Your task to perform on an android device: see tabs open on other devices in the chrome app Image 0: 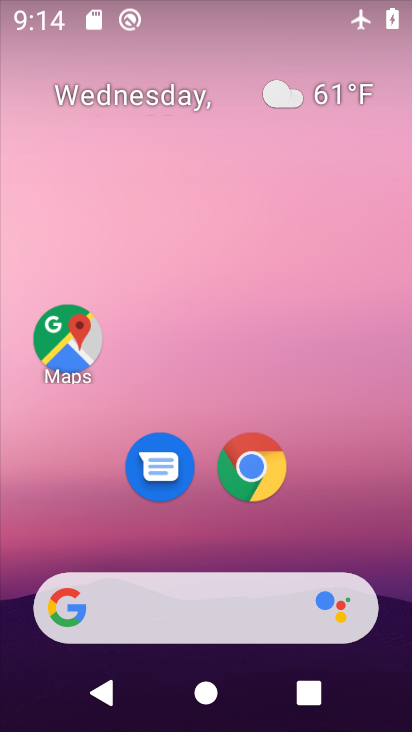
Step 0: drag from (347, 513) to (291, 102)
Your task to perform on an android device: see tabs open on other devices in the chrome app Image 1: 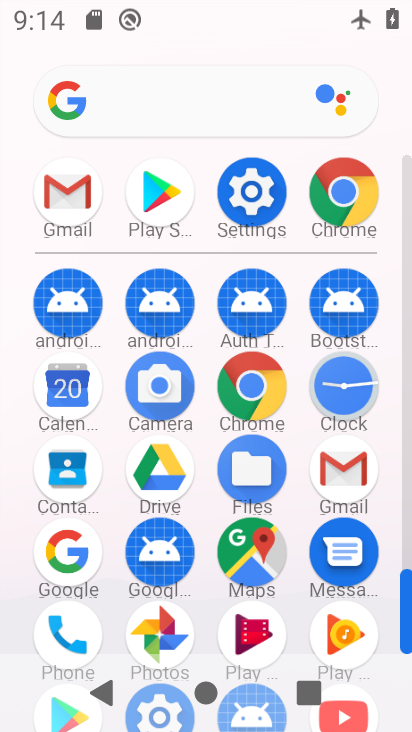
Step 1: click (366, 195)
Your task to perform on an android device: see tabs open on other devices in the chrome app Image 2: 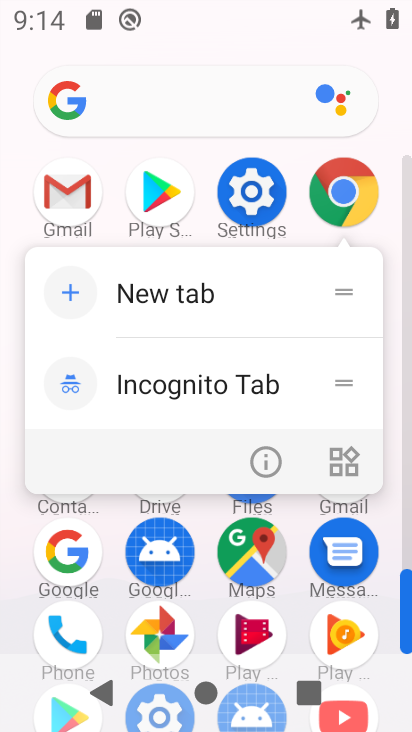
Step 2: click (367, 195)
Your task to perform on an android device: see tabs open on other devices in the chrome app Image 3: 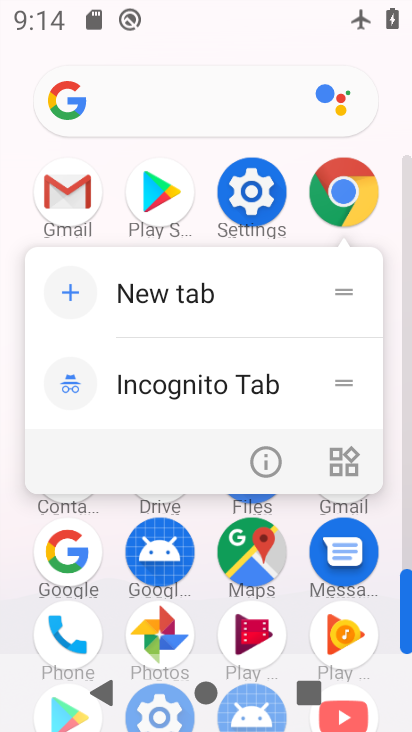
Step 3: click (367, 193)
Your task to perform on an android device: see tabs open on other devices in the chrome app Image 4: 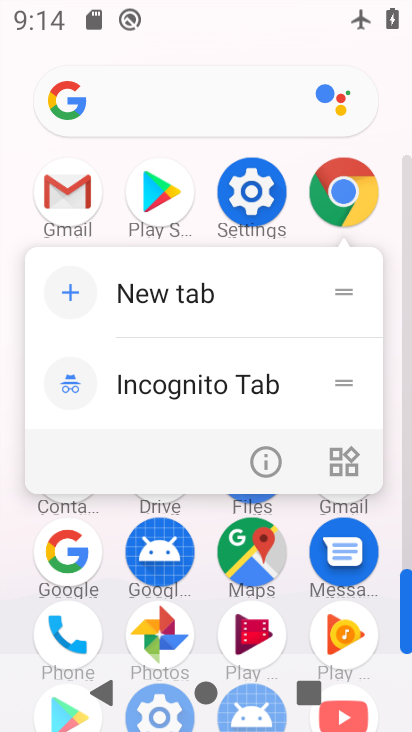
Step 4: click (367, 193)
Your task to perform on an android device: see tabs open on other devices in the chrome app Image 5: 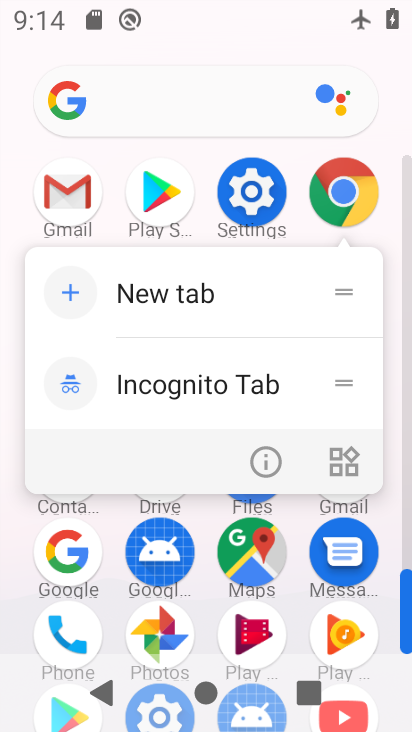
Step 5: click (367, 193)
Your task to perform on an android device: see tabs open on other devices in the chrome app Image 6: 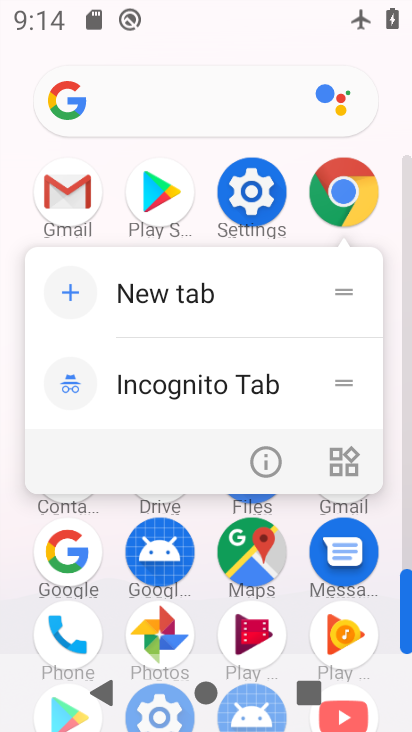
Step 6: click (367, 193)
Your task to perform on an android device: see tabs open on other devices in the chrome app Image 7: 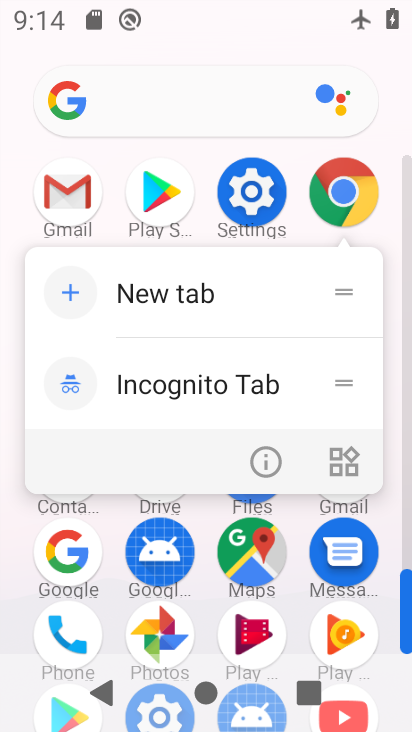
Step 7: click (367, 193)
Your task to perform on an android device: see tabs open on other devices in the chrome app Image 8: 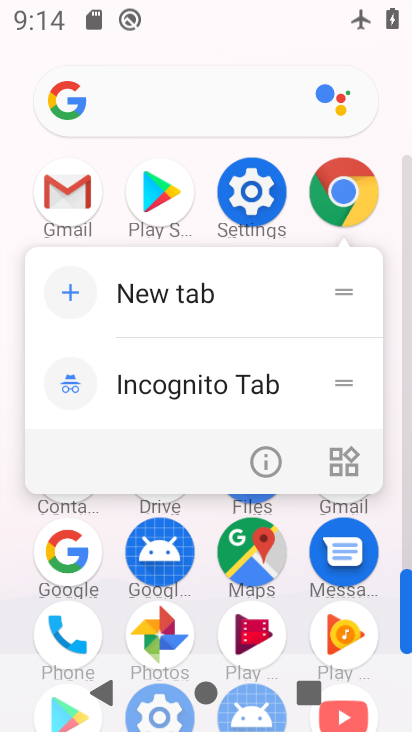
Step 8: click (367, 193)
Your task to perform on an android device: see tabs open on other devices in the chrome app Image 9: 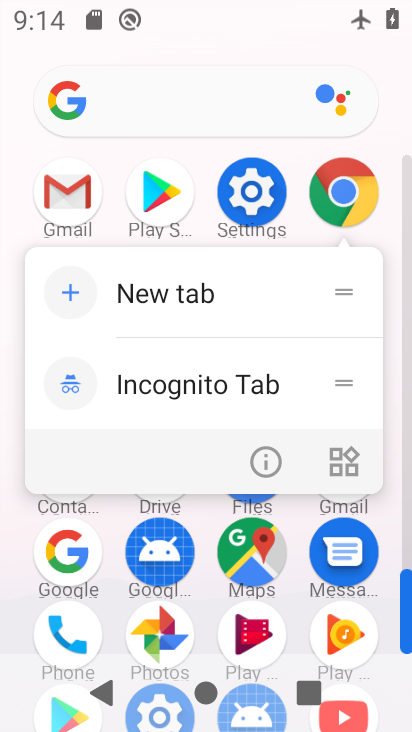
Step 9: click (367, 193)
Your task to perform on an android device: see tabs open on other devices in the chrome app Image 10: 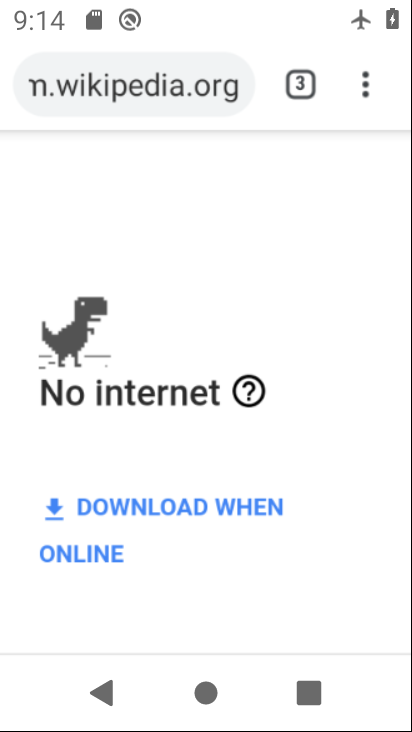
Step 10: click (367, 193)
Your task to perform on an android device: see tabs open on other devices in the chrome app Image 11: 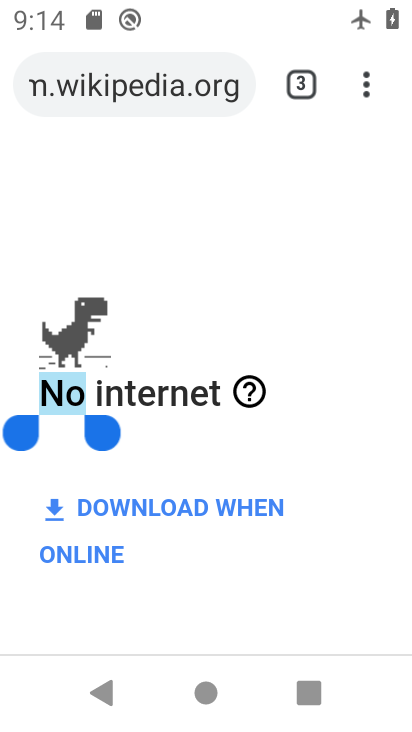
Step 11: drag from (362, 85) to (115, 515)
Your task to perform on an android device: see tabs open on other devices in the chrome app Image 12: 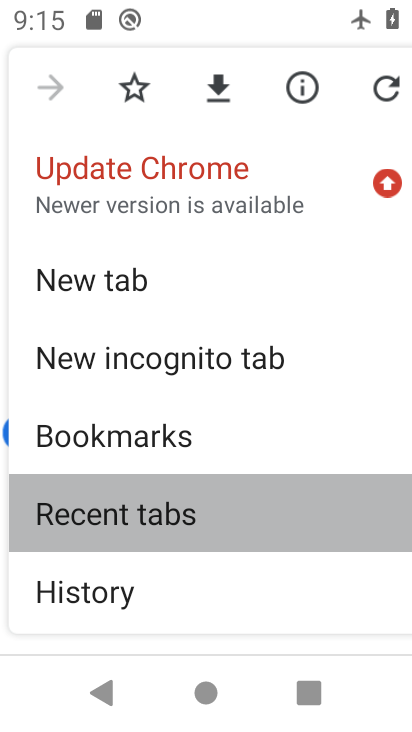
Step 12: click (115, 515)
Your task to perform on an android device: see tabs open on other devices in the chrome app Image 13: 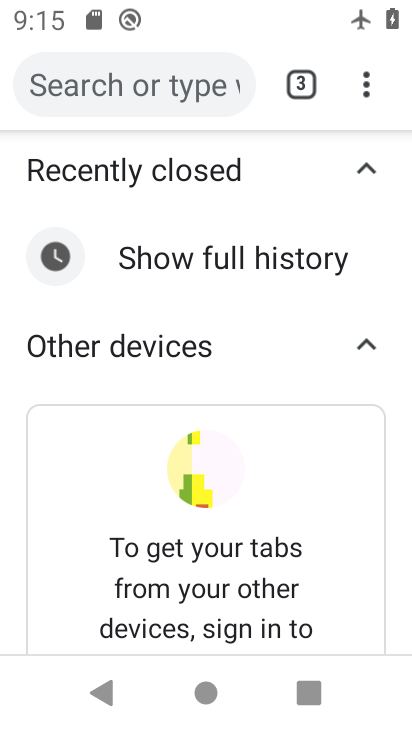
Step 13: task complete